Your task to perform on an android device: Find coffee shops on Maps Image 0: 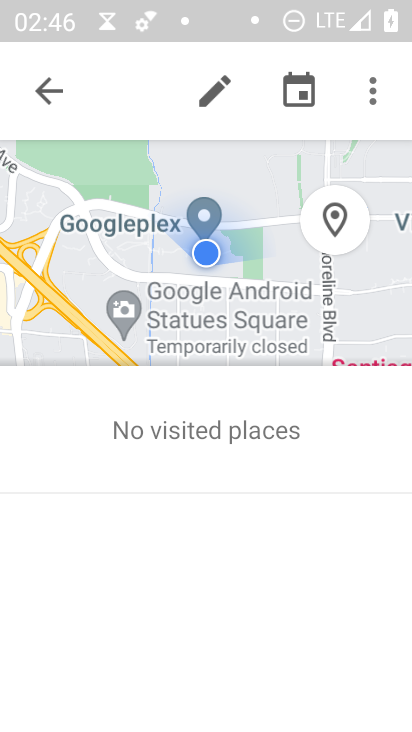
Step 0: click (50, 92)
Your task to perform on an android device: Find coffee shops on Maps Image 1: 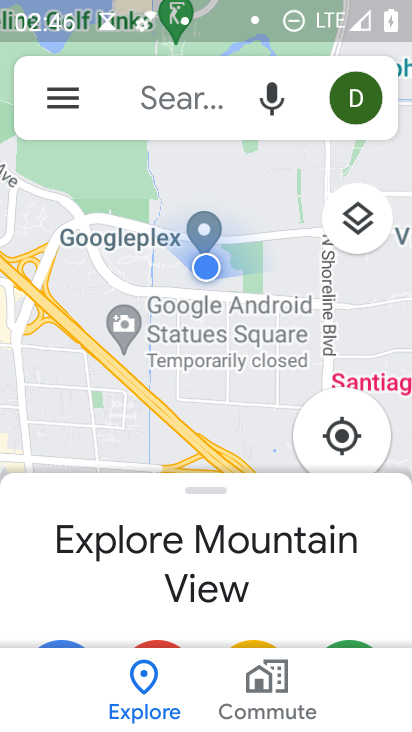
Step 1: click (173, 98)
Your task to perform on an android device: Find coffee shops on Maps Image 2: 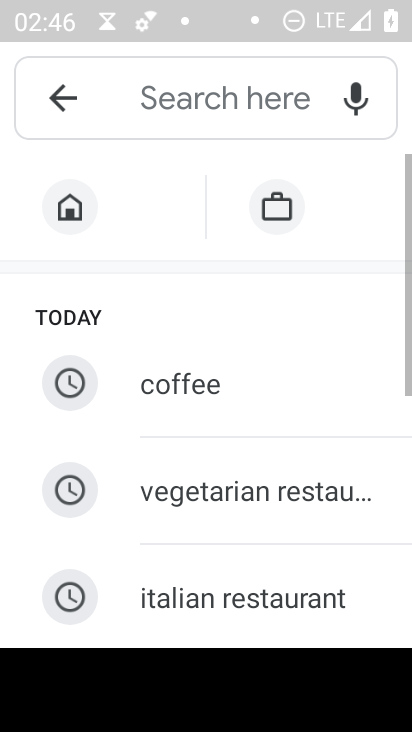
Step 2: click (221, 359)
Your task to perform on an android device: Find coffee shops on Maps Image 3: 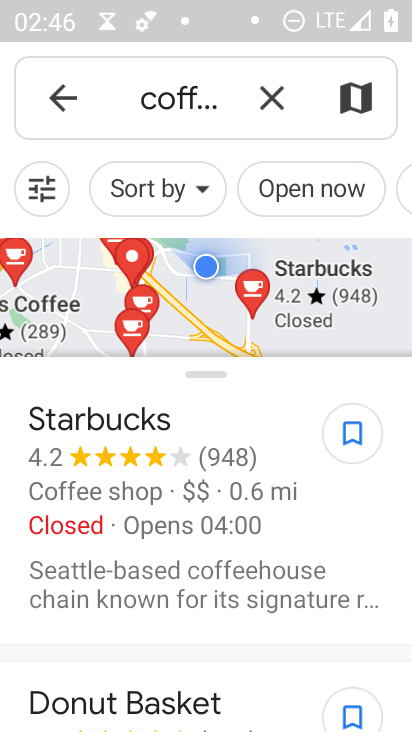
Step 3: task complete